Your task to perform on an android device: change keyboard looks Image 0: 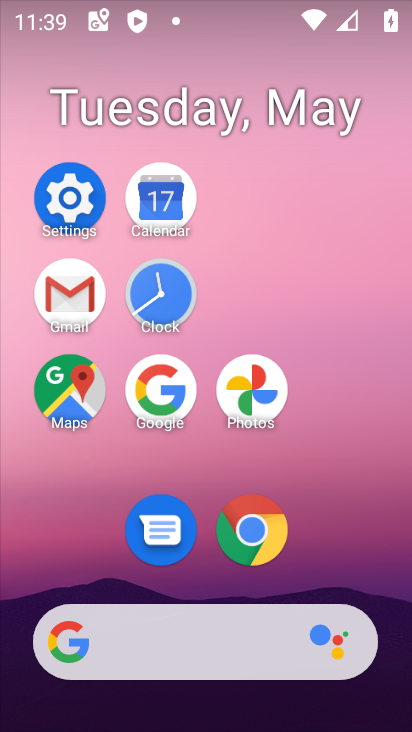
Step 0: click (63, 202)
Your task to perform on an android device: change keyboard looks Image 1: 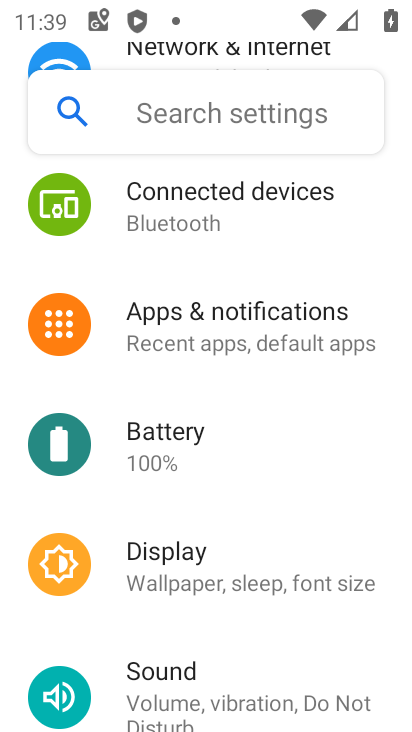
Step 1: drag from (302, 601) to (294, 154)
Your task to perform on an android device: change keyboard looks Image 2: 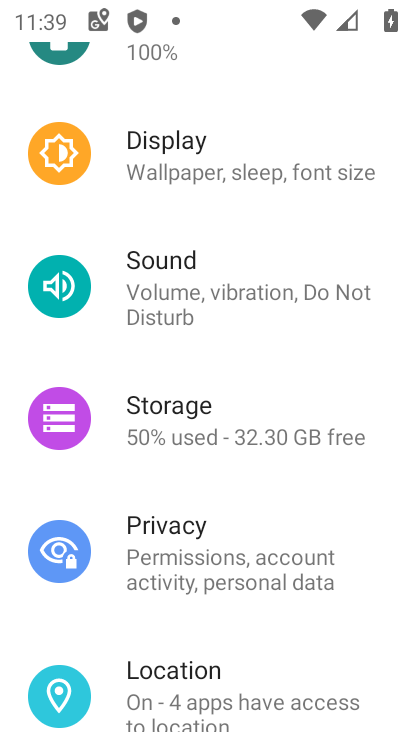
Step 2: drag from (294, 541) to (318, 149)
Your task to perform on an android device: change keyboard looks Image 3: 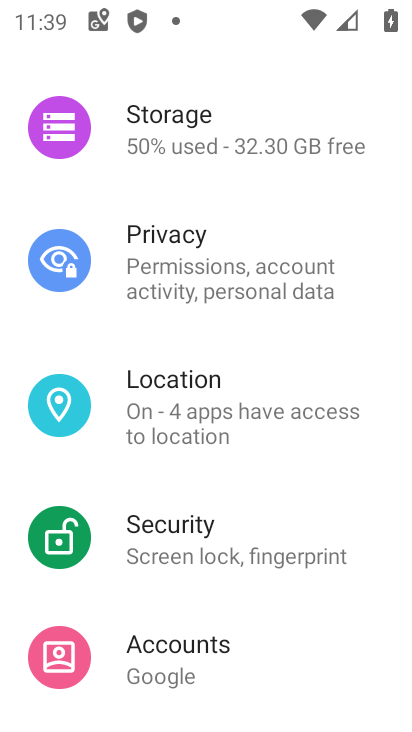
Step 3: drag from (278, 569) to (288, 195)
Your task to perform on an android device: change keyboard looks Image 4: 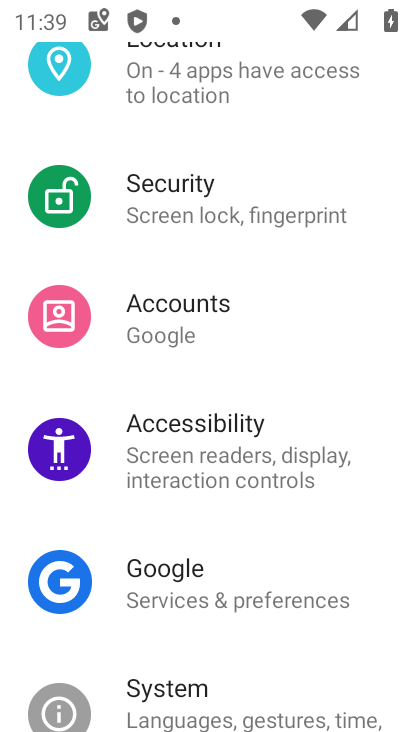
Step 4: drag from (292, 653) to (328, 211)
Your task to perform on an android device: change keyboard looks Image 5: 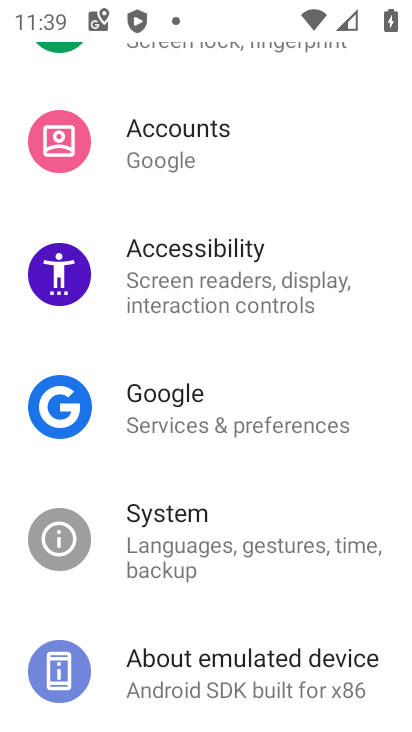
Step 5: click (238, 548)
Your task to perform on an android device: change keyboard looks Image 6: 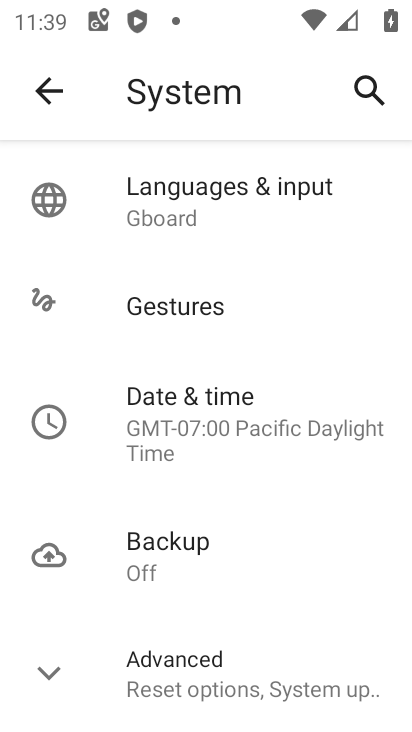
Step 6: drag from (282, 526) to (284, 161)
Your task to perform on an android device: change keyboard looks Image 7: 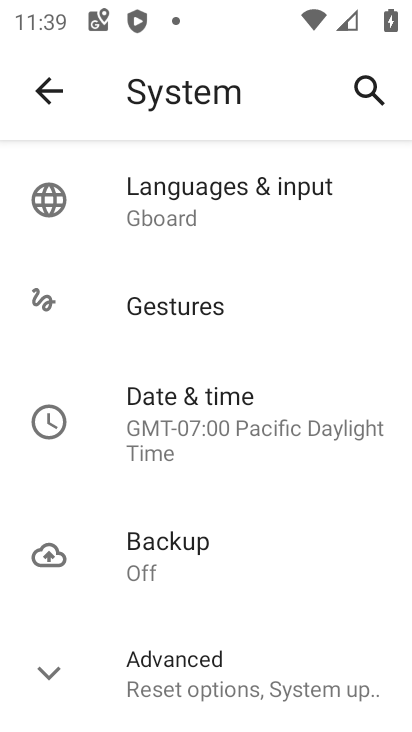
Step 7: drag from (288, 273) to (274, 528)
Your task to perform on an android device: change keyboard looks Image 8: 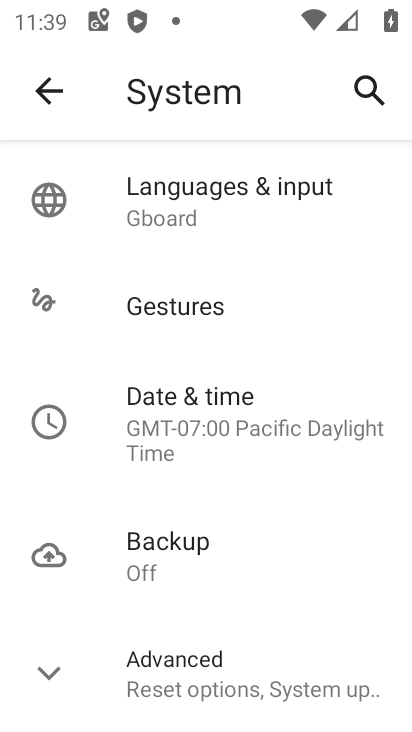
Step 8: click (280, 222)
Your task to perform on an android device: change keyboard looks Image 9: 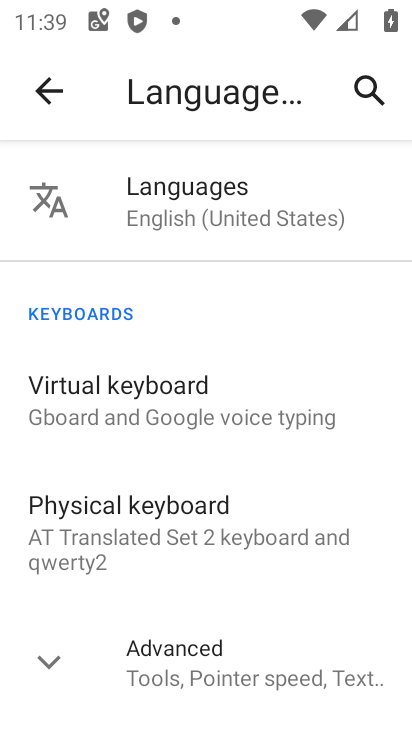
Step 9: click (127, 406)
Your task to perform on an android device: change keyboard looks Image 10: 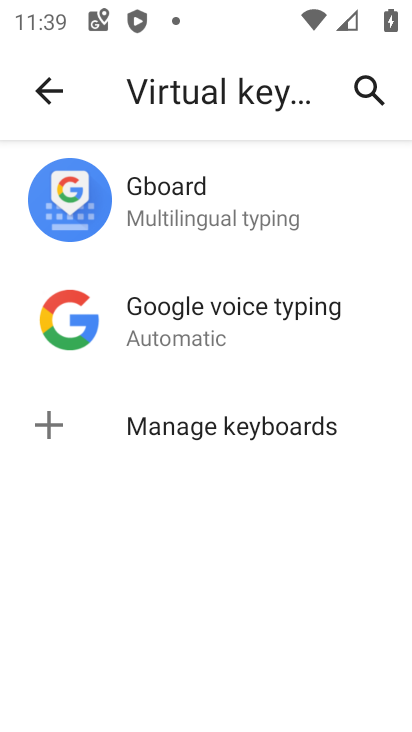
Step 10: click (208, 185)
Your task to perform on an android device: change keyboard looks Image 11: 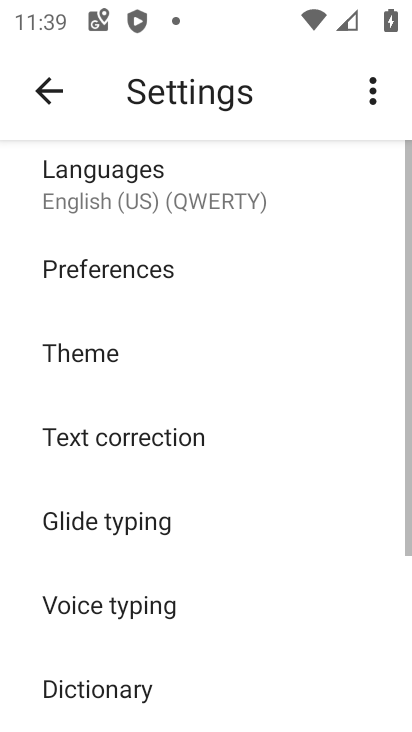
Step 11: click (196, 361)
Your task to perform on an android device: change keyboard looks Image 12: 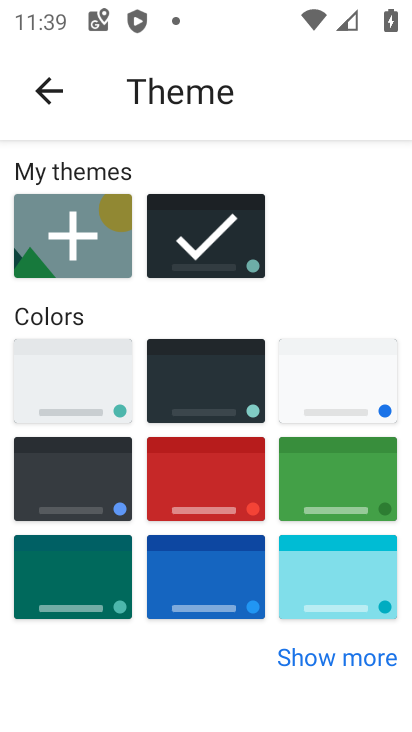
Step 12: click (270, 412)
Your task to perform on an android device: change keyboard looks Image 13: 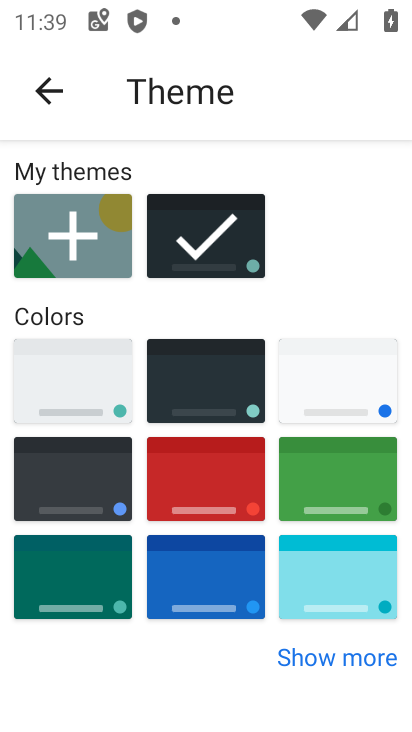
Step 13: click (215, 399)
Your task to perform on an android device: change keyboard looks Image 14: 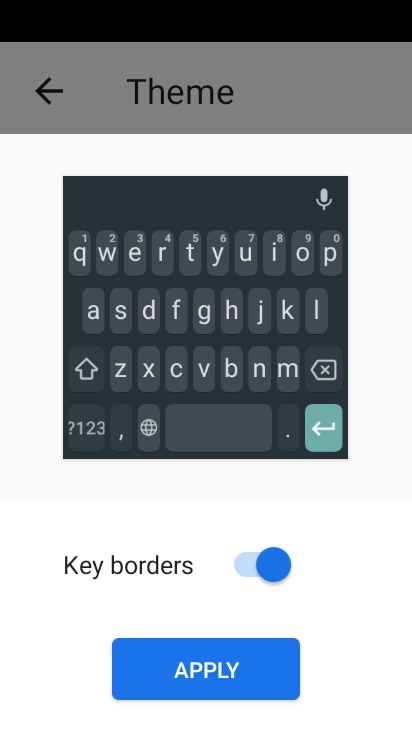
Step 14: click (238, 663)
Your task to perform on an android device: change keyboard looks Image 15: 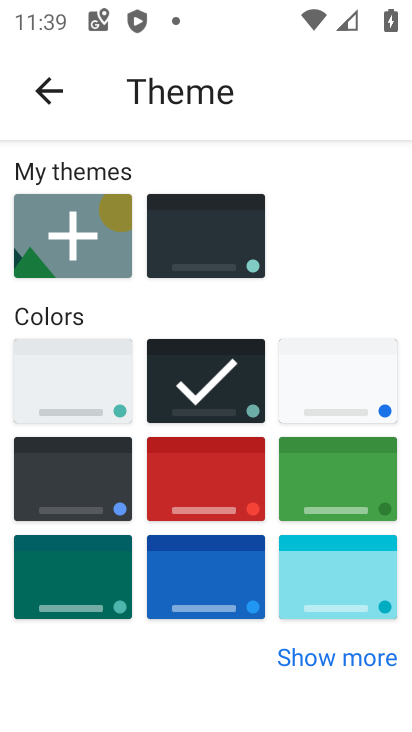
Step 15: task complete